Your task to perform on an android device: Go to Wikipedia Image 0: 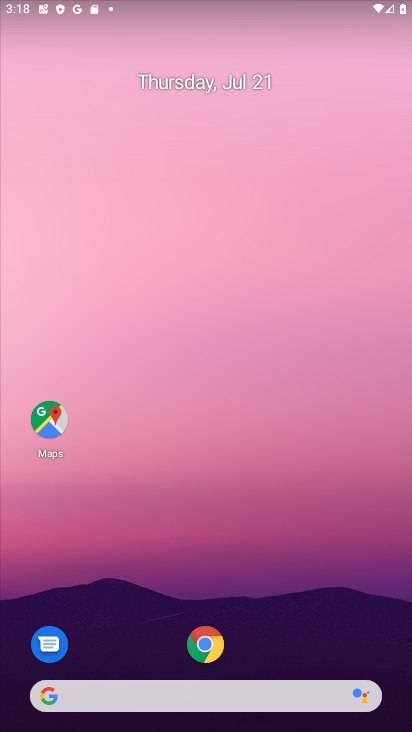
Step 0: press home button
Your task to perform on an android device: Go to Wikipedia Image 1: 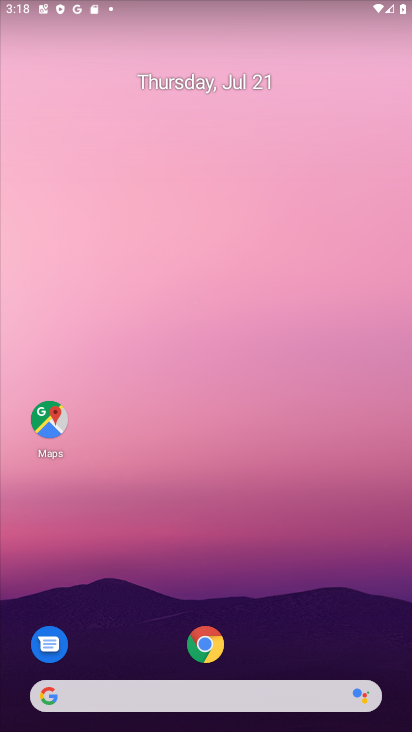
Step 1: press home button
Your task to perform on an android device: Go to Wikipedia Image 2: 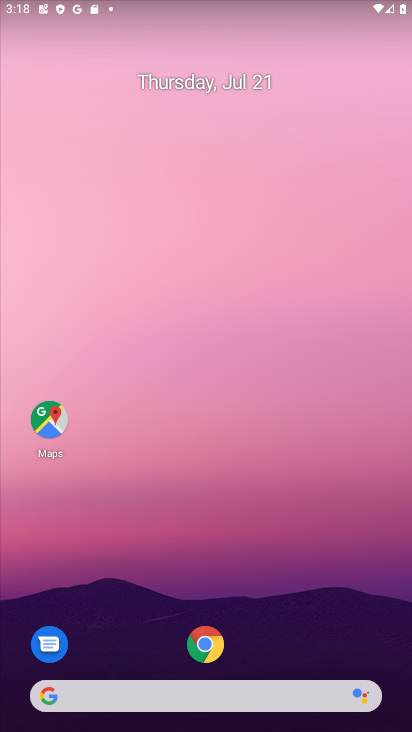
Step 2: click (53, 699)
Your task to perform on an android device: Go to Wikipedia Image 3: 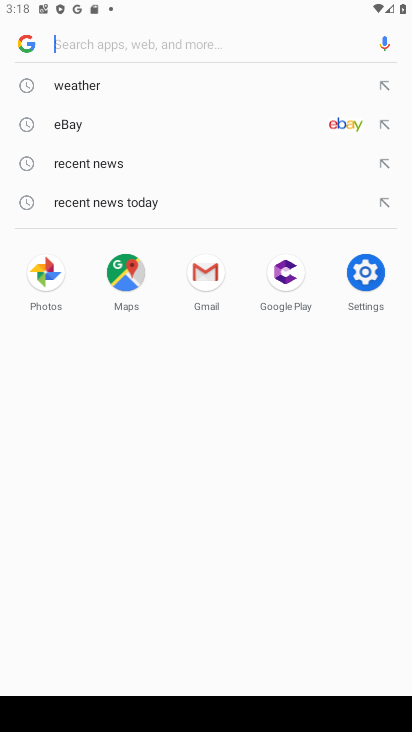
Step 3: type "Wikipedia"
Your task to perform on an android device: Go to Wikipedia Image 4: 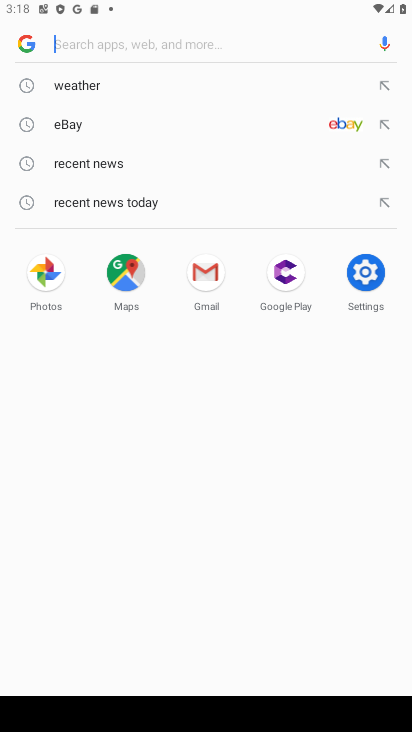
Step 4: click (98, 49)
Your task to perform on an android device: Go to Wikipedia Image 5: 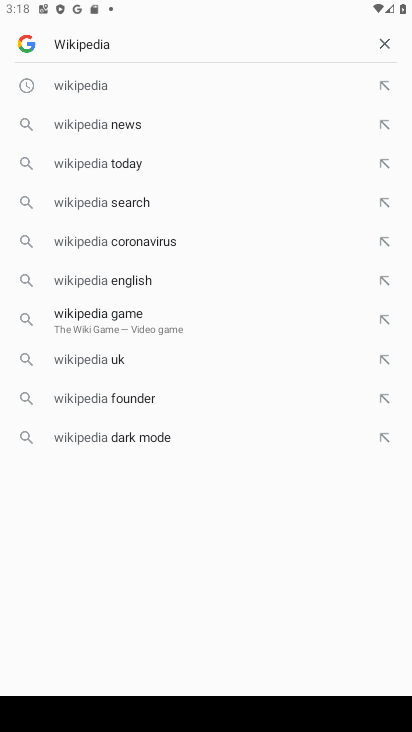
Step 5: press enter
Your task to perform on an android device: Go to Wikipedia Image 6: 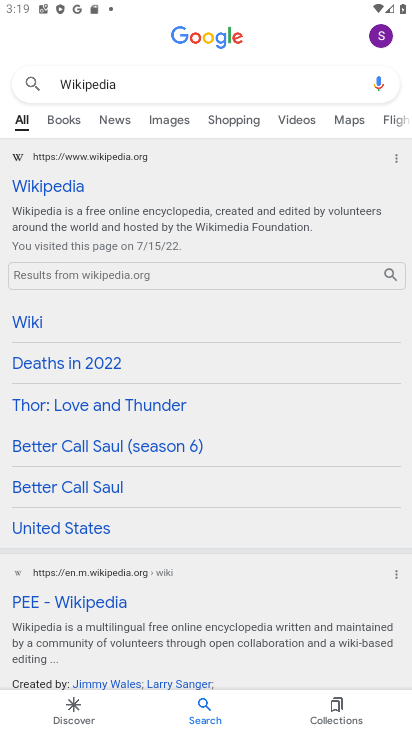
Step 6: click (42, 185)
Your task to perform on an android device: Go to Wikipedia Image 7: 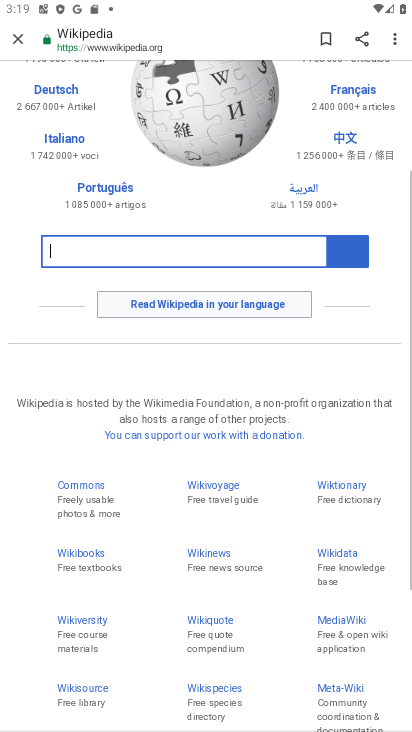
Step 7: task complete